Your task to perform on an android device: change the upload size in google photos Image 0: 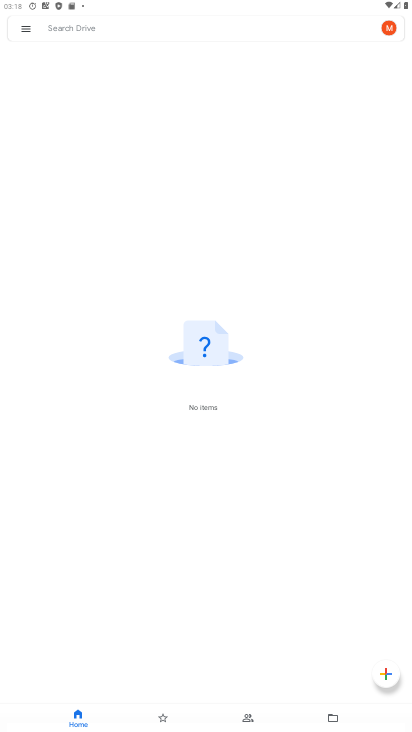
Step 0: press home button
Your task to perform on an android device: change the upload size in google photos Image 1: 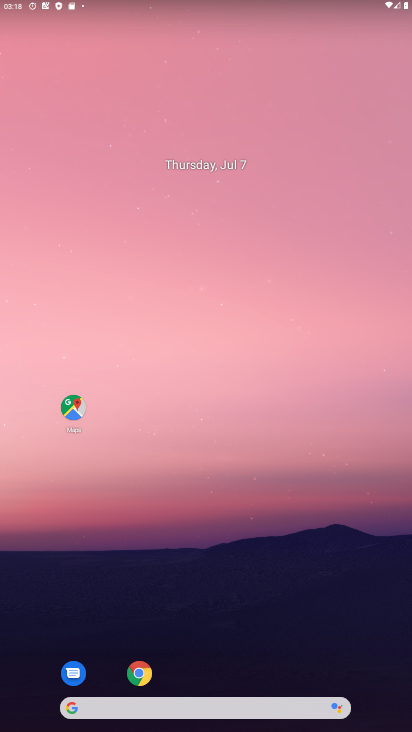
Step 1: drag from (202, 659) to (202, 336)
Your task to perform on an android device: change the upload size in google photos Image 2: 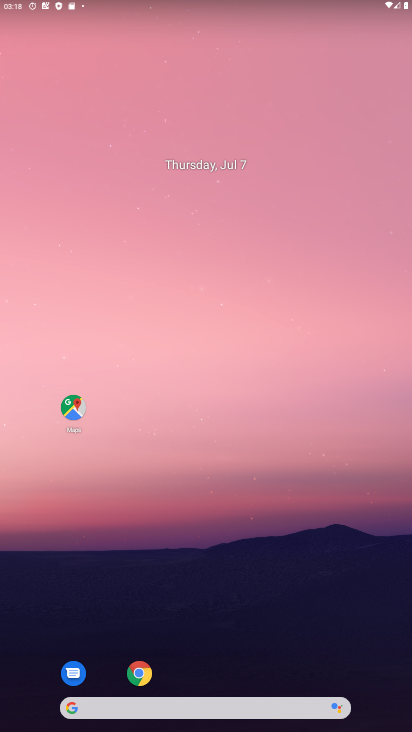
Step 2: drag from (198, 675) to (216, 222)
Your task to perform on an android device: change the upload size in google photos Image 3: 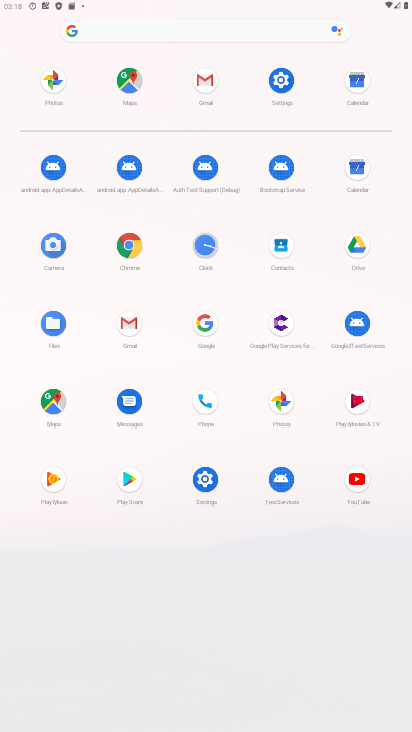
Step 3: click (55, 81)
Your task to perform on an android device: change the upload size in google photos Image 4: 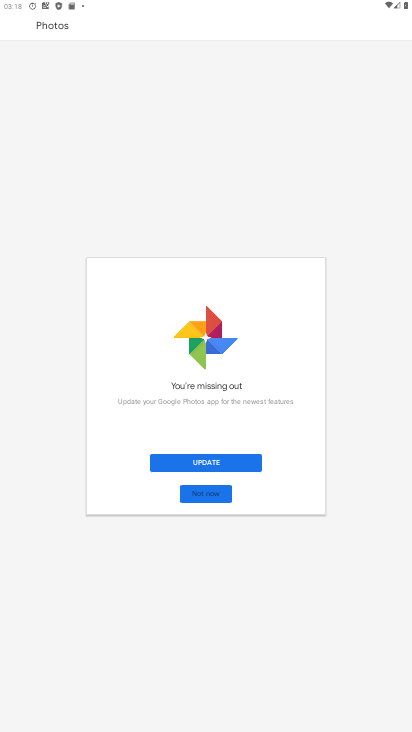
Step 4: click (206, 496)
Your task to perform on an android device: change the upload size in google photos Image 5: 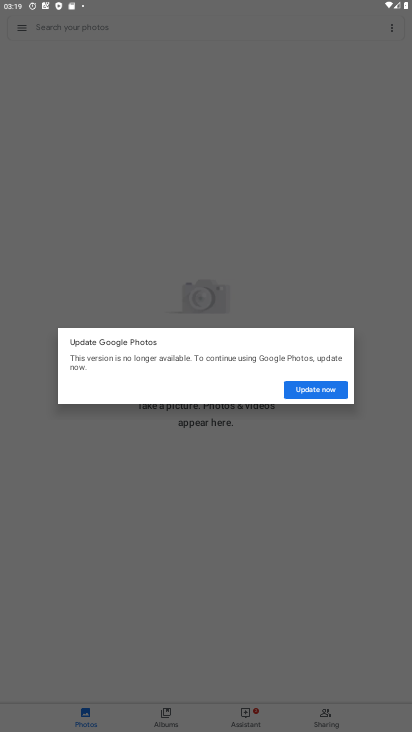
Step 5: click (298, 392)
Your task to perform on an android device: change the upload size in google photos Image 6: 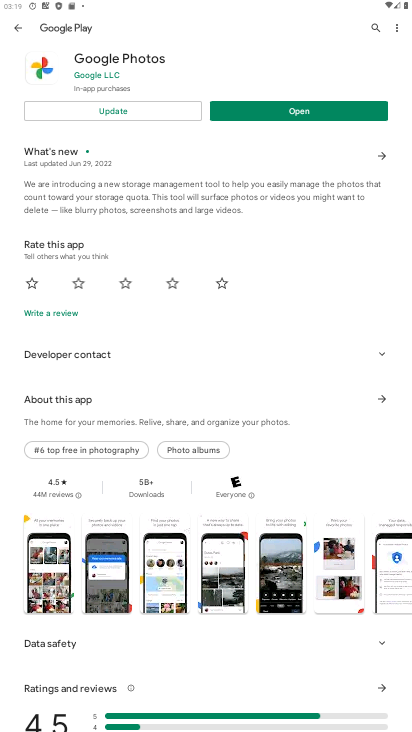
Step 6: click (282, 110)
Your task to perform on an android device: change the upload size in google photos Image 7: 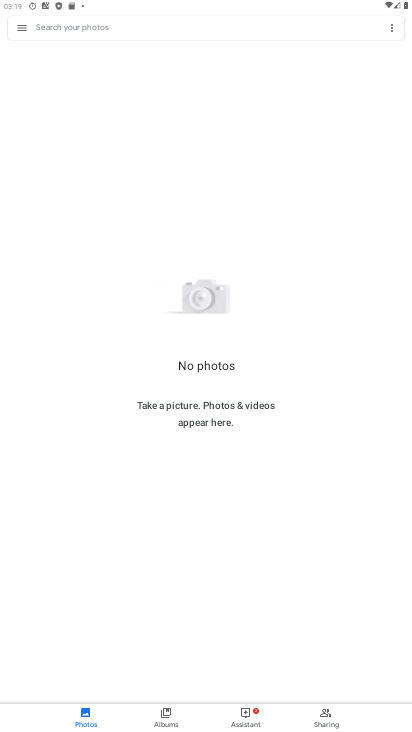
Step 7: click (23, 33)
Your task to perform on an android device: change the upload size in google photos Image 8: 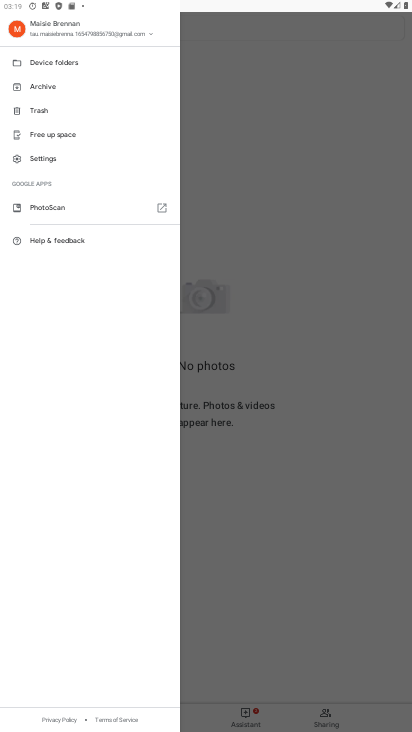
Step 8: click (47, 168)
Your task to perform on an android device: change the upload size in google photos Image 9: 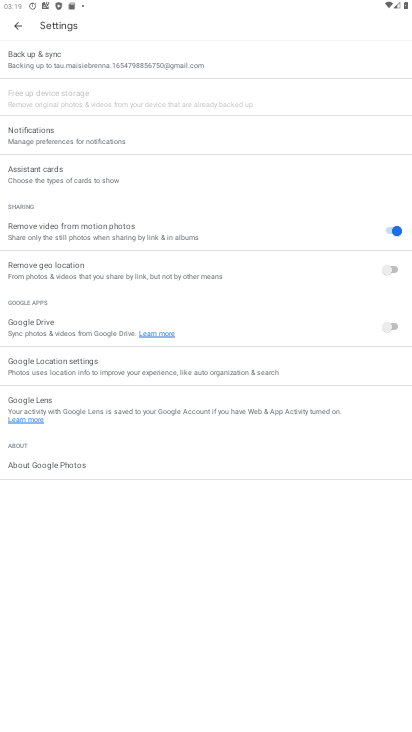
Step 9: click (38, 48)
Your task to perform on an android device: change the upload size in google photos Image 10: 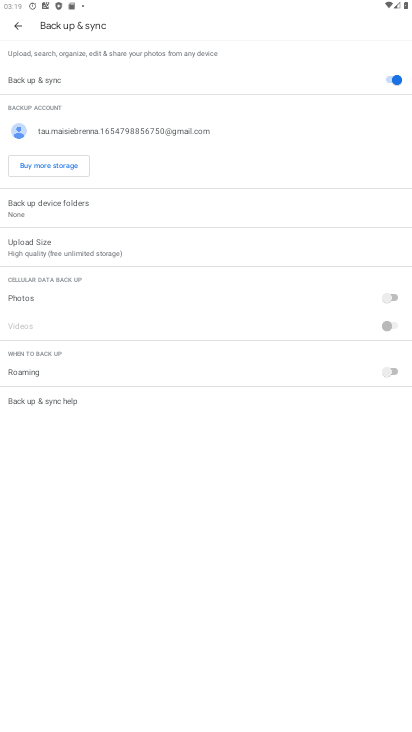
Step 10: click (69, 254)
Your task to perform on an android device: change the upload size in google photos Image 11: 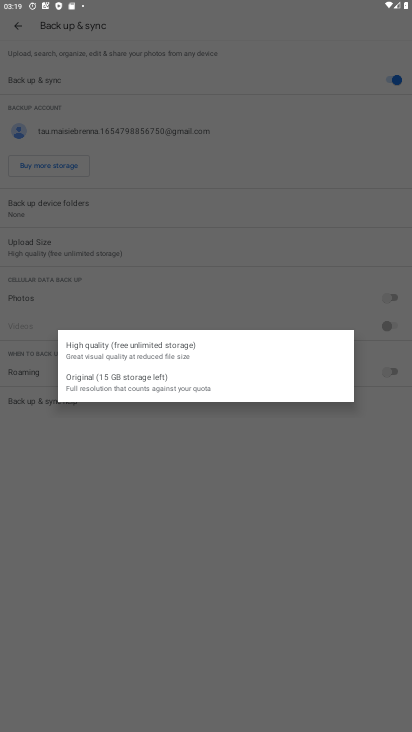
Step 11: click (110, 380)
Your task to perform on an android device: change the upload size in google photos Image 12: 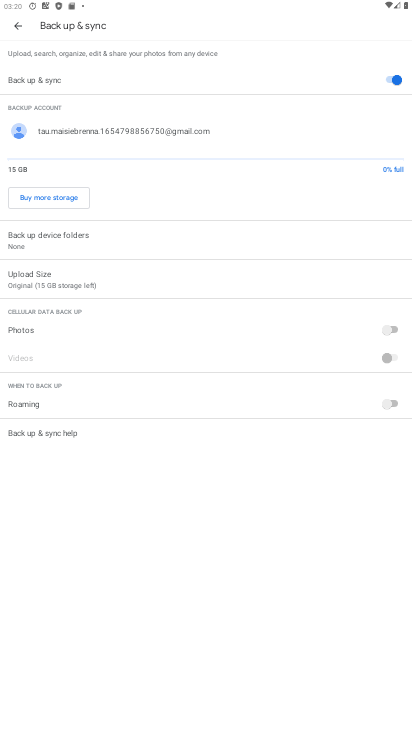
Step 12: task complete